Your task to perform on an android device: Go to eBay Image 0: 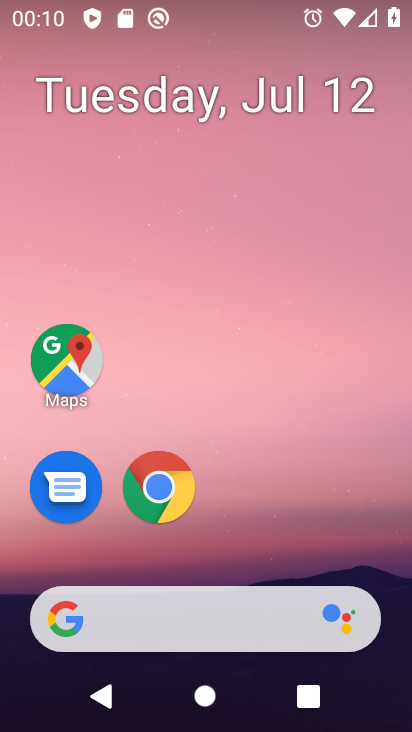
Step 0: drag from (332, 536) to (340, 130)
Your task to perform on an android device: Go to eBay Image 1: 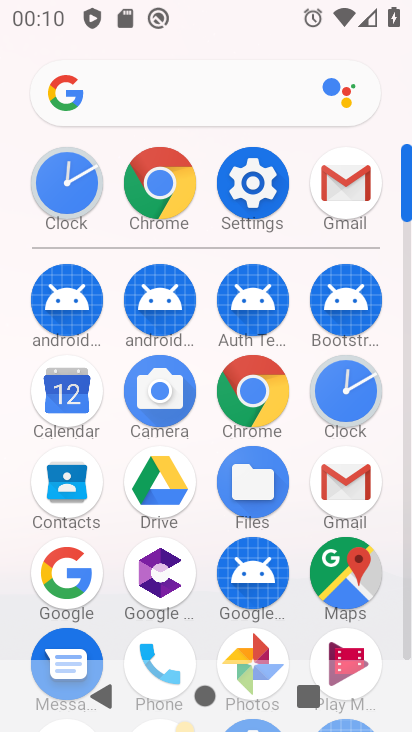
Step 1: click (259, 398)
Your task to perform on an android device: Go to eBay Image 2: 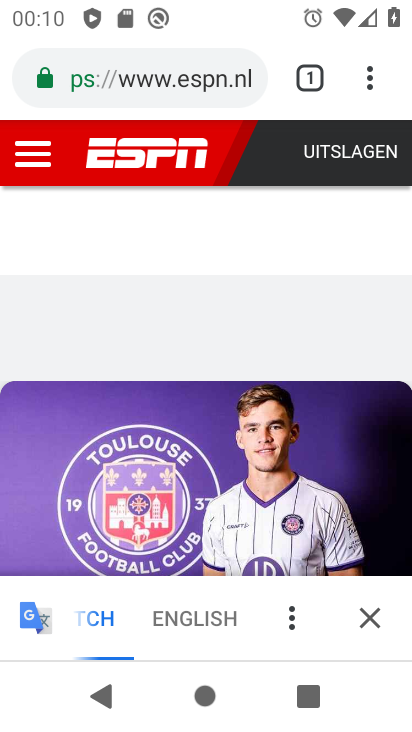
Step 2: click (203, 73)
Your task to perform on an android device: Go to eBay Image 3: 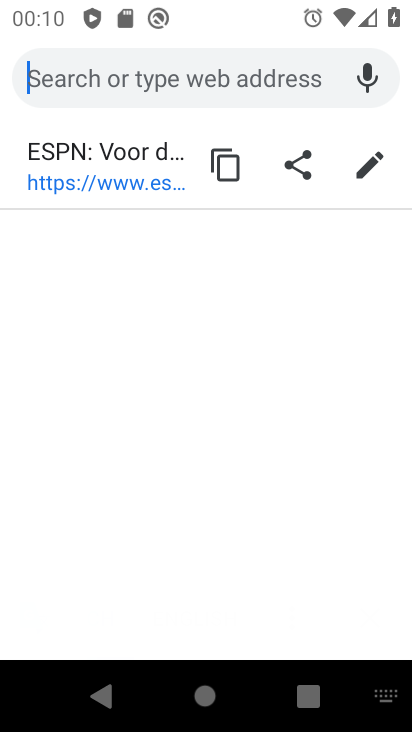
Step 3: type "ebay"
Your task to perform on an android device: Go to eBay Image 4: 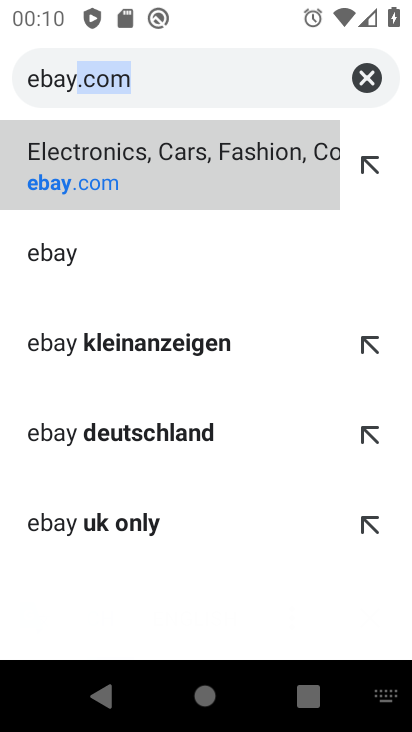
Step 4: click (95, 175)
Your task to perform on an android device: Go to eBay Image 5: 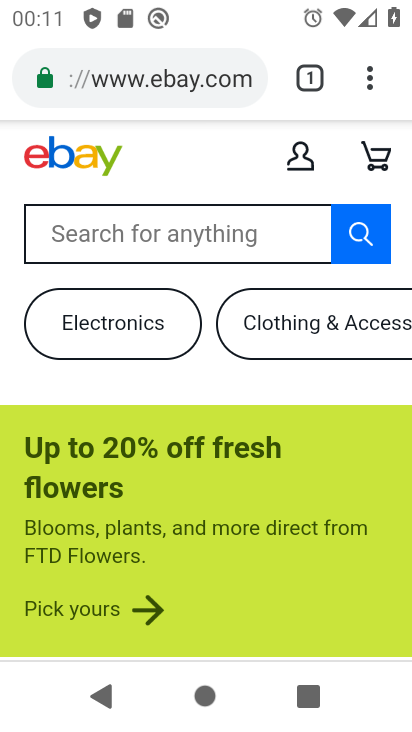
Step 5: task complete